Your task to perform on an android device: empty trash in the gmail app Image 0: 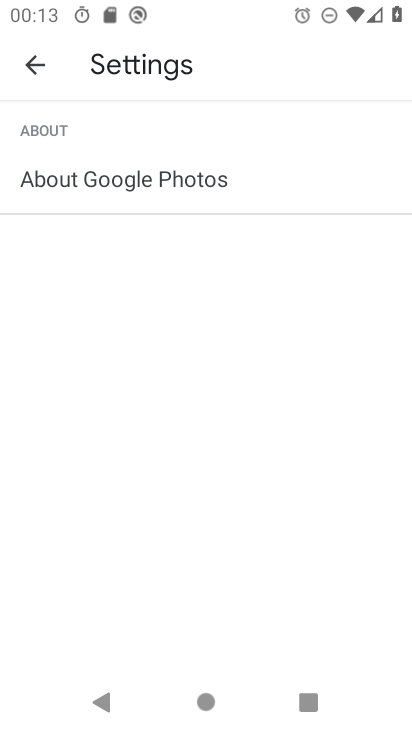
Step 0: press home button
Your task to perform on an android device: empty trash in the gmail app Image 1: 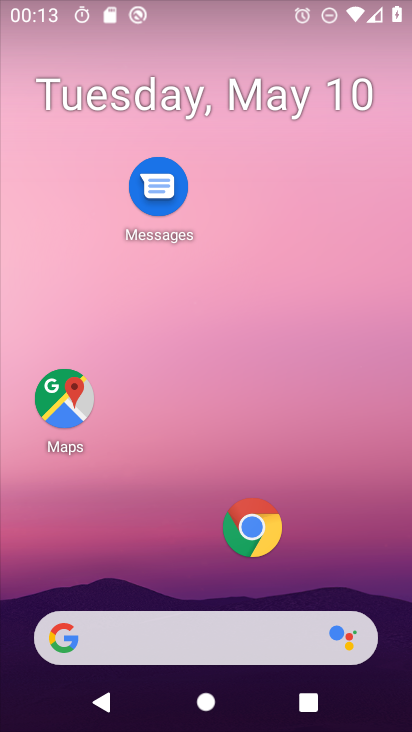
Step 1: drag from (177, 547) to (222, 48)
Your task to perform on an android device: empty trash in the gmail app Image 2: 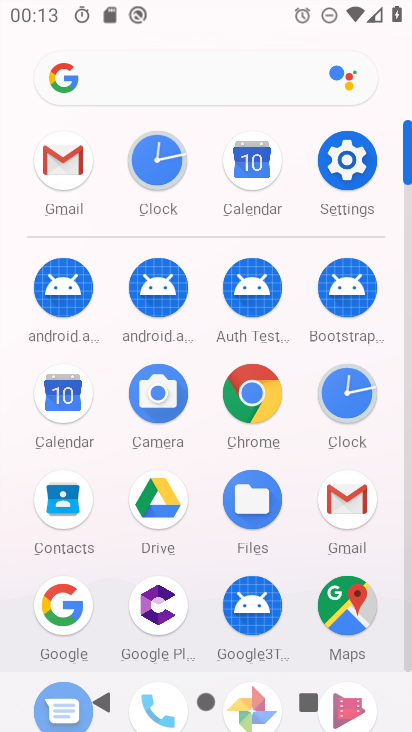
Step 2: click (64, 156)
Your task to perform on an android device: empty trash in the gmail app Image 3: 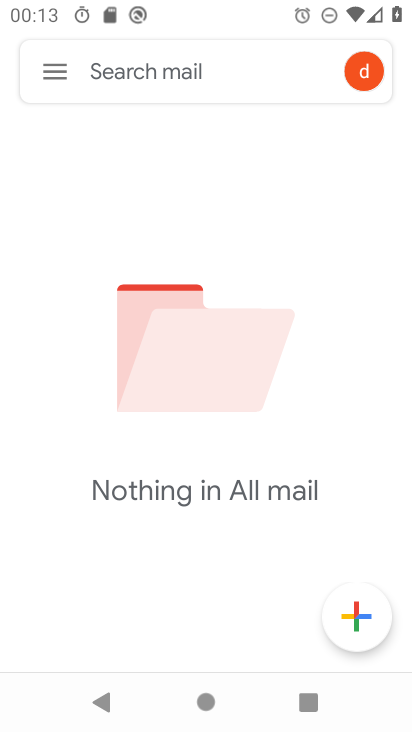
Step 3: click (63, 70)
Your task to perform on an android device: empty trash in the gmail app Image 4: 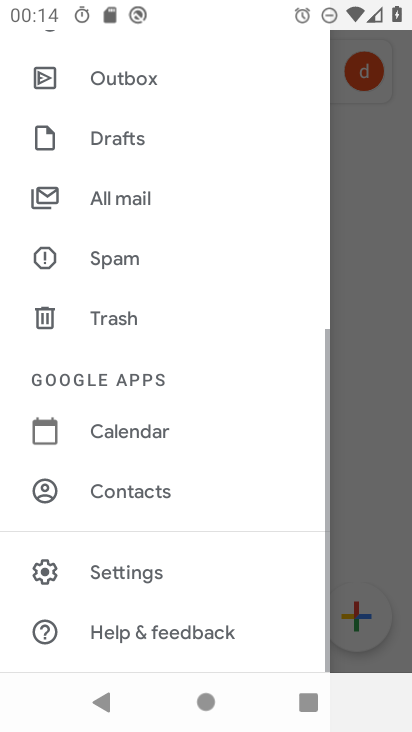
Step 4: click (103, 318)
Your task to perform on an android device: empty trash in the gmail app Image 5: 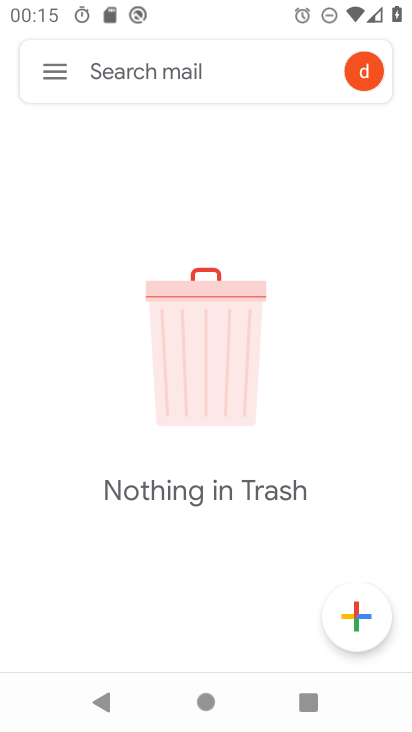
Step 5: task complete